Your task to perform on an android device: set default search engine in the chrome app Image 0: 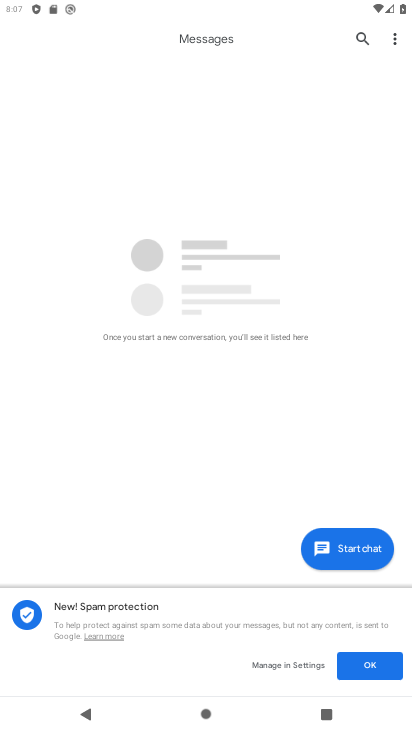
Step 0: press home button
Your task to perform on an android device: set default search engine in the chrome app Image 1: 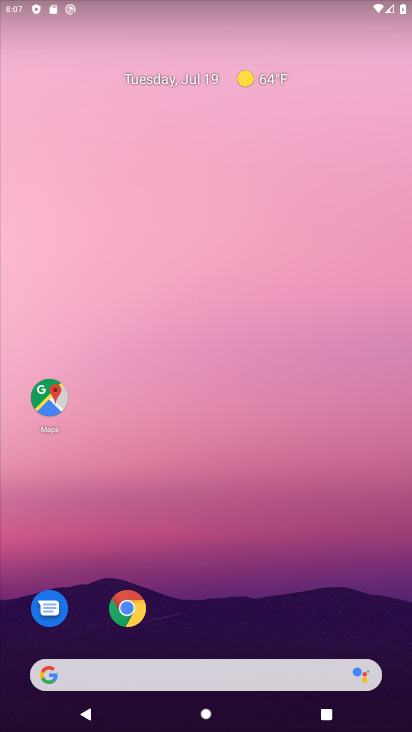
Step 1: click (137, 607)
Your task to perform on an android device: set default search engine in the chrome app Image 2: 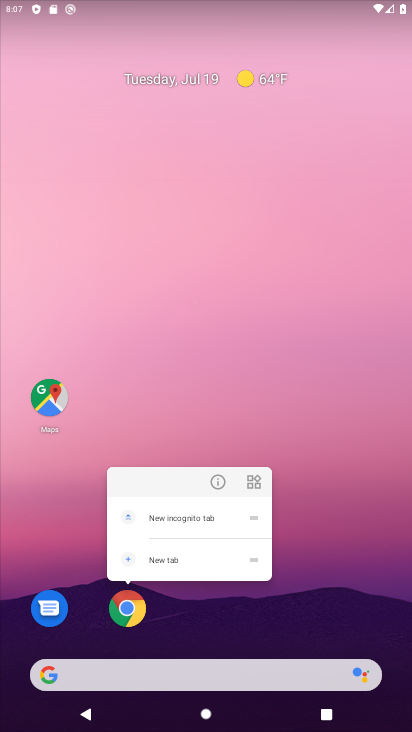
Step 2: click (137, 607)
Your task to perform on an android device: set default search engine in the chrome app Image 3: 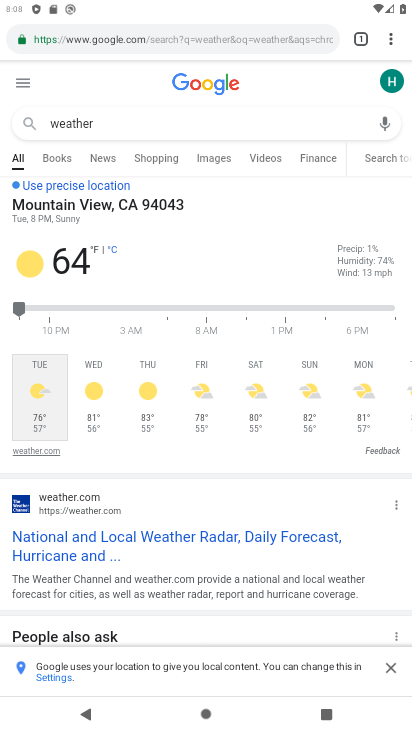
Step 3: drag from (395, 42) to (258, 442)
Your task to perform on an android device: set default search engine in the chrome app Image 4: 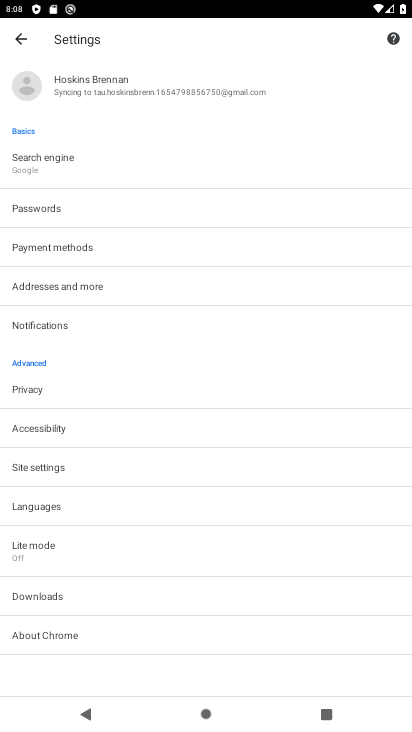
Step 4: click (77, 179)
Your task to perform on an android device: set default search engine in the chrome app Image 5: 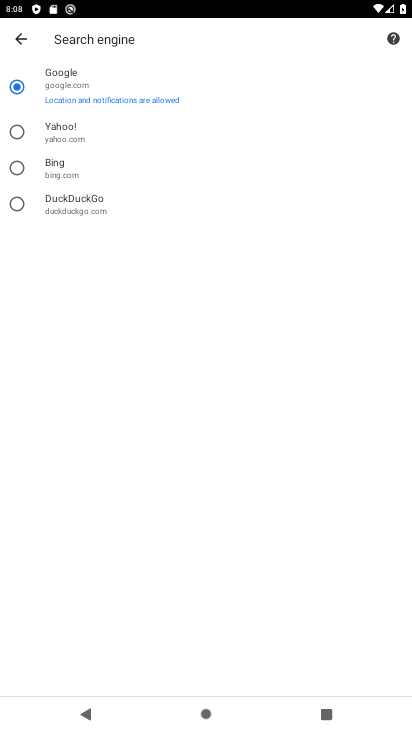
Step 5: click (47, 210)
Your task to perform on an android device: set default search engine in the chrome app Image 6: 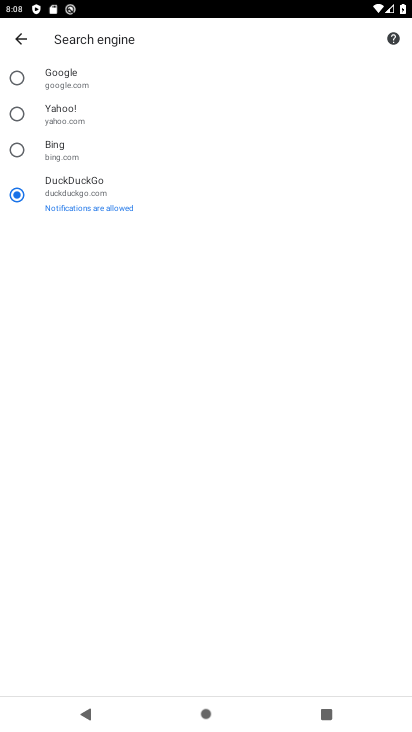
Step 6: task complete